Your task to perform on an android device: check battery use Image 0: 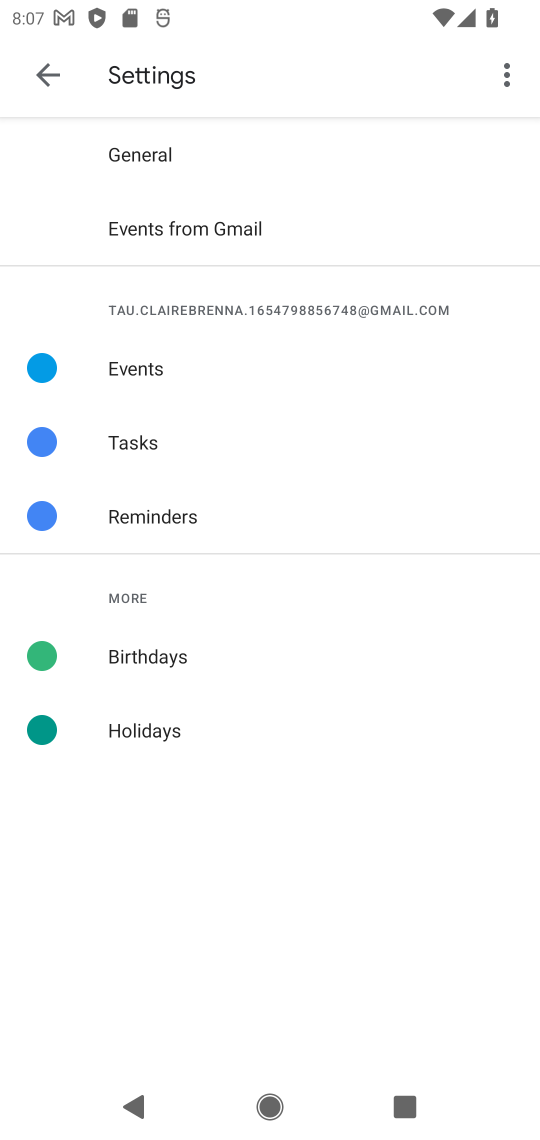
Step 0: press home button
Your task to perform on an android device: check battery use Image 1: 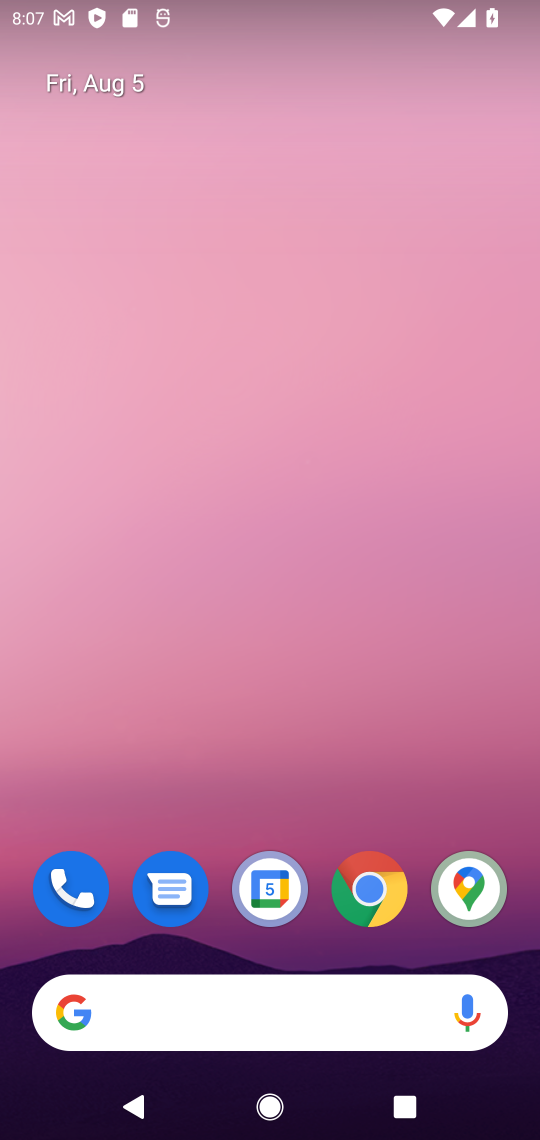
Step 1: drag from (159, 967) to (159, 263)
Your task to perform on an android device: check battery use Image 2: 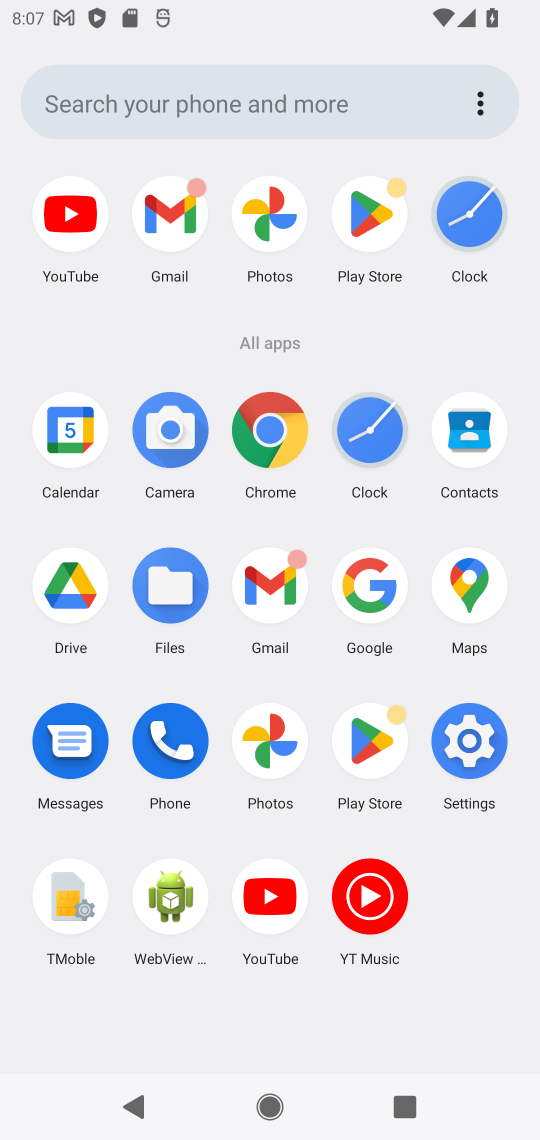
Step 2: click (470, 726)
Your task to perform on an android device: check battery use Image 3: 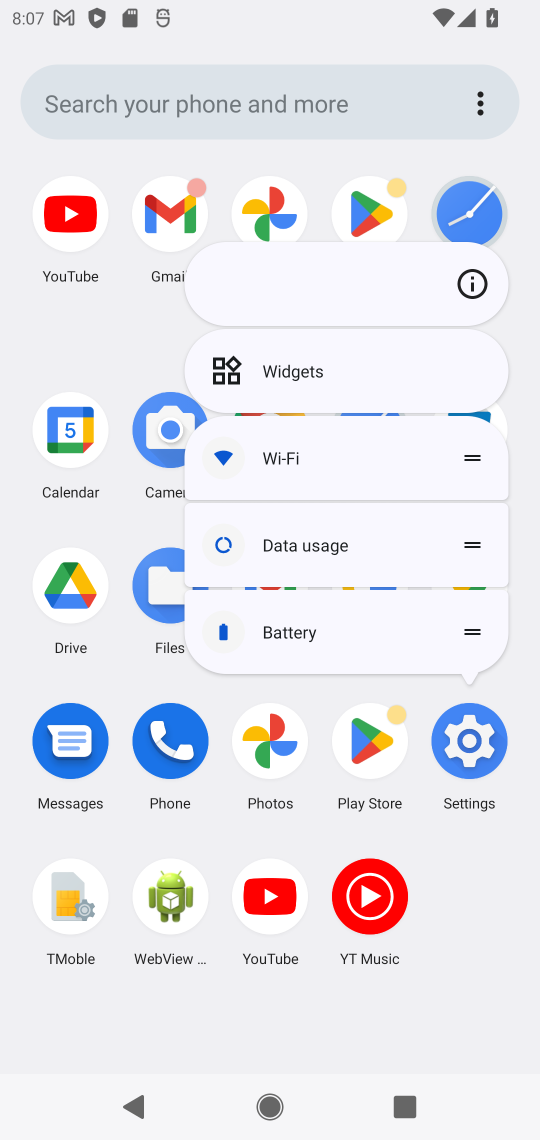
Step 3: click (465, 758)
Your task to perform on an android device: check battery use Image 4: 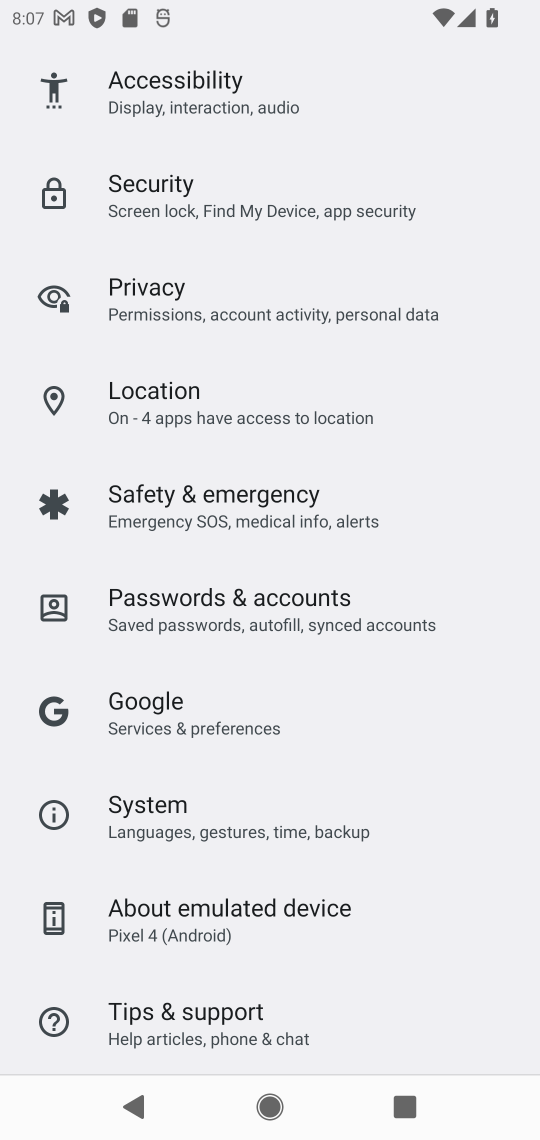
Step 4: drag from (273, 199) to (264, 869)
Your task to perform on an android device: check battery use Image 5: 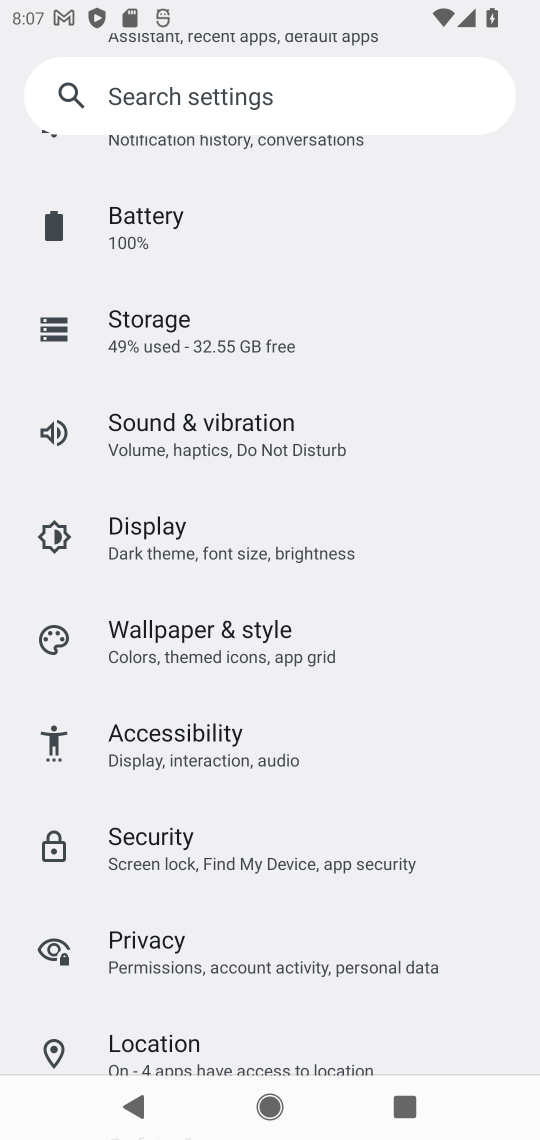
Step 5: drag from (275, 263) to (249, 1041)
Your task to perform on an android device: check battery use Image 6: 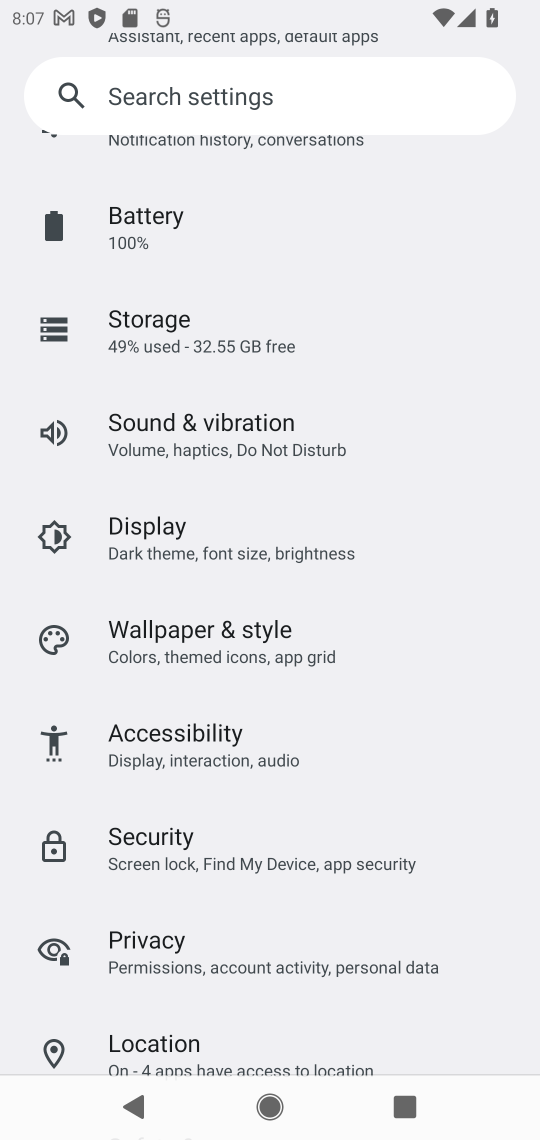
Step 6: click (185, 220)
Your task to perform on an android device: check battery use Image 7: 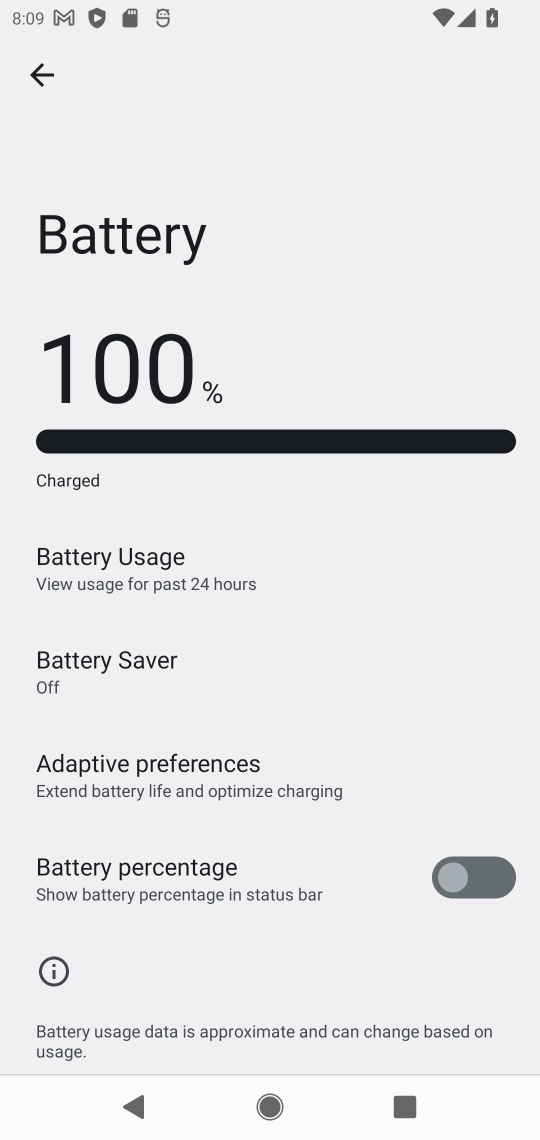
Step 7: task complete